Your task to perform on an android device: toggle airplane mode Image 0: 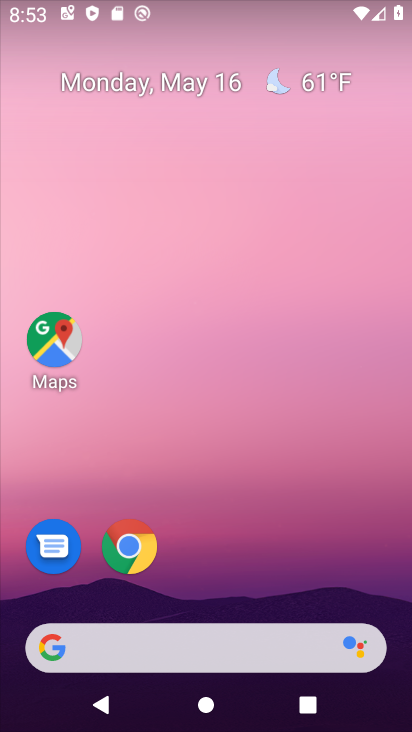
Step 0: drag from (340, 8) to (369, 452)
Your task to perform on an android device: toggle airplane mode Image 1: 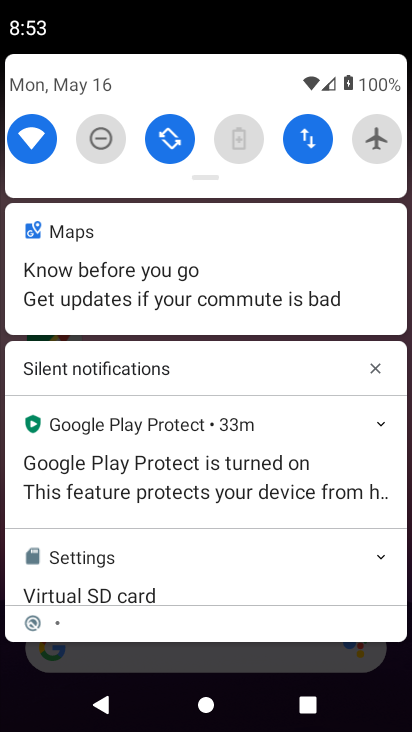
Step 1: click (374, 150)
Your task to perform on an android device: toggle airplane mode Image 2: 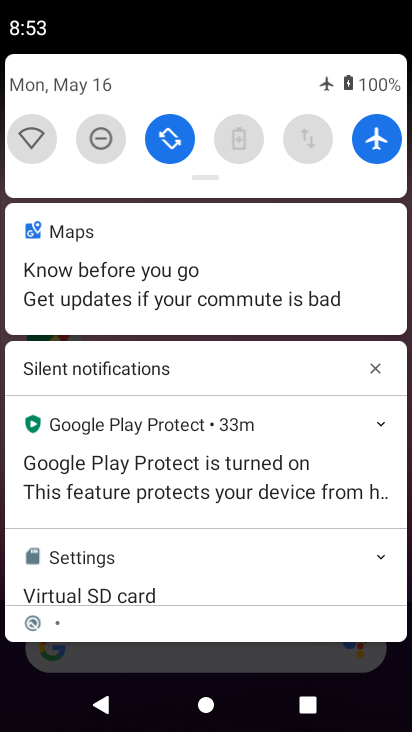
Step 2: task complete